Your task to perform on an android device: change the clock display to show seconds Image 0: 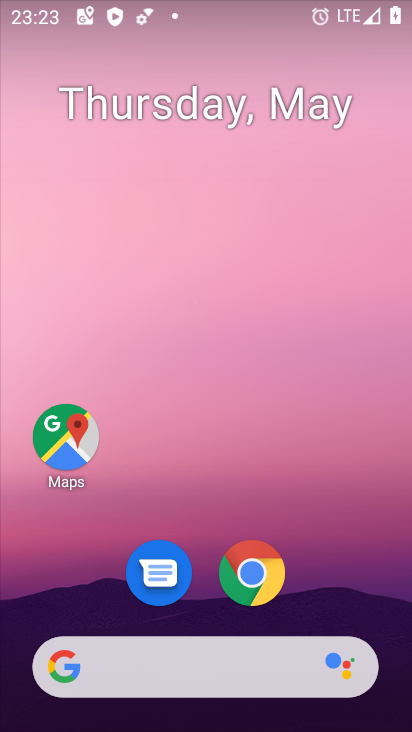
Step 0: drag from (216, 607) to (212, 226)
Your task to perform on an android device: change the clock display to show seconds Image 1: 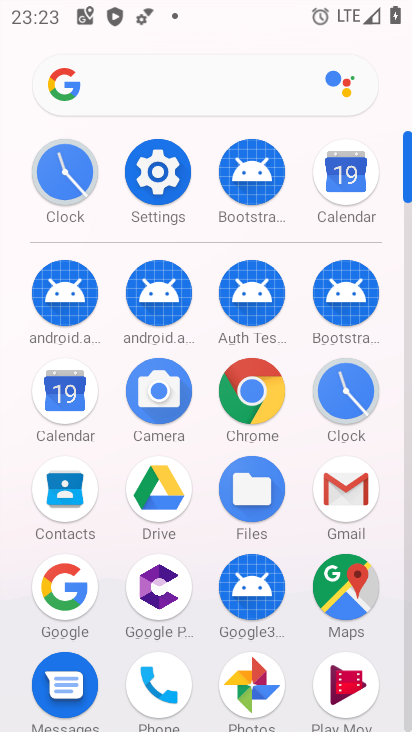
Step 1: click (341, 377)
Your task to perform on an android device: change the clock display to show seconds Image 2: 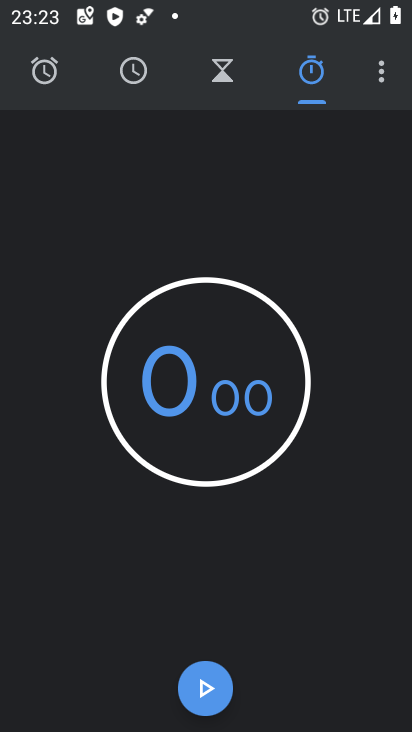
Step 2: click (383, 70)
Your task to perform on an android device: change the clock display to show seconds Image 3: 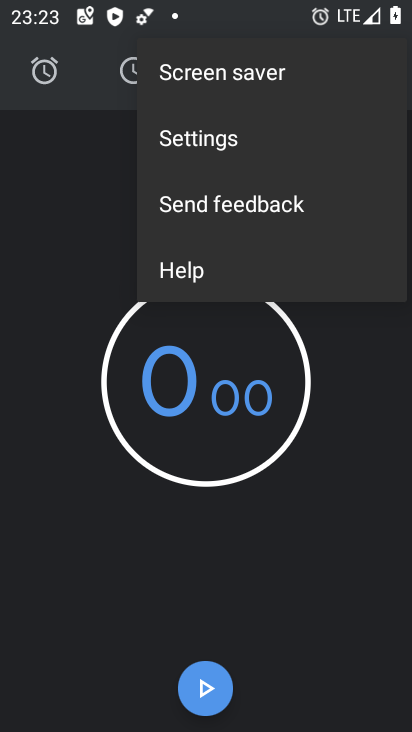
Step 3: click (279, 131)
Your task to perform on an android device: change the clock display to show seconds Image 4: 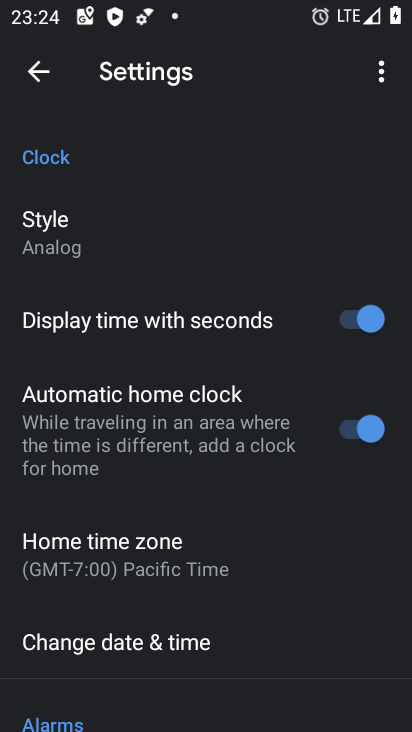
Step 4: task complete